Your task to perform on an android device: Go to internet settings Image 0: 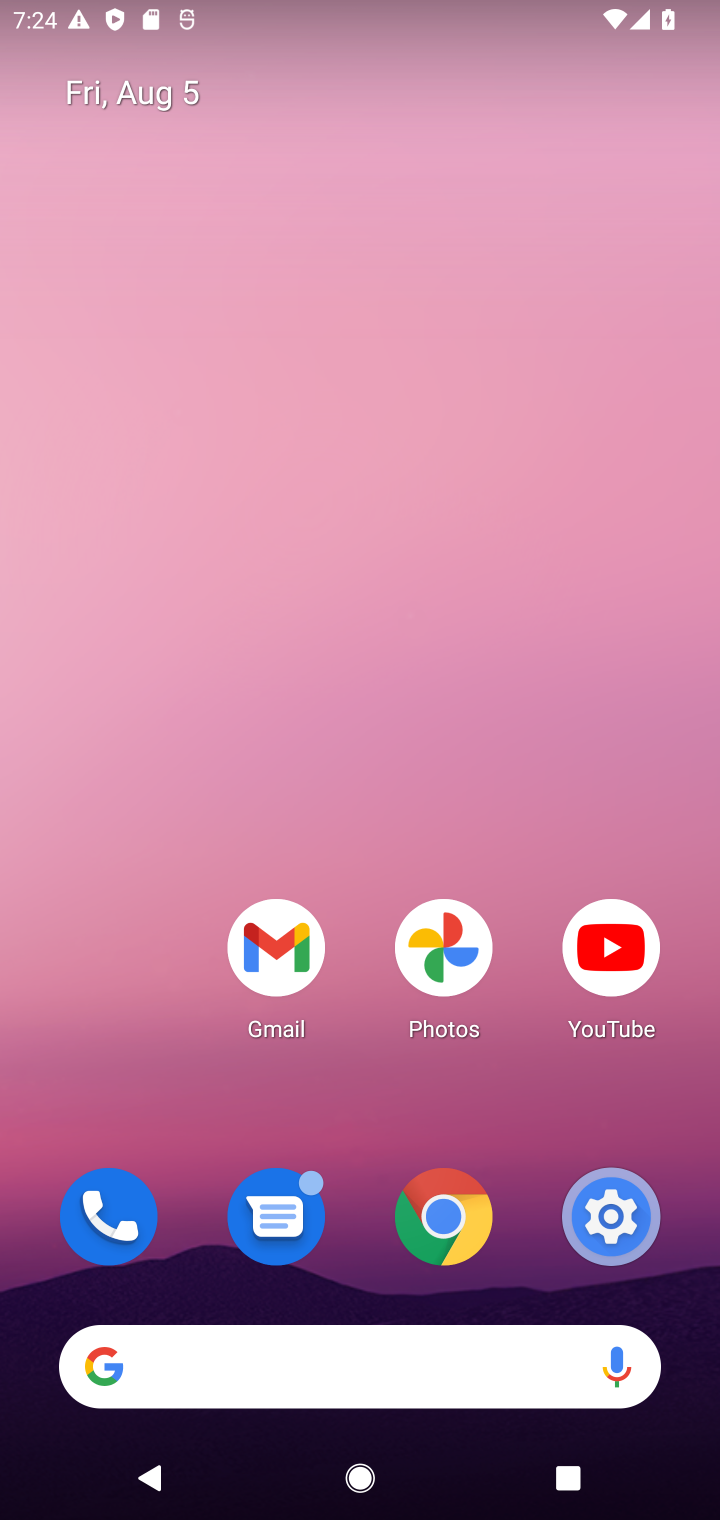
Step 0: click (596, 1198)
Your task to perform on an android device: Go to internet settings Image 1: 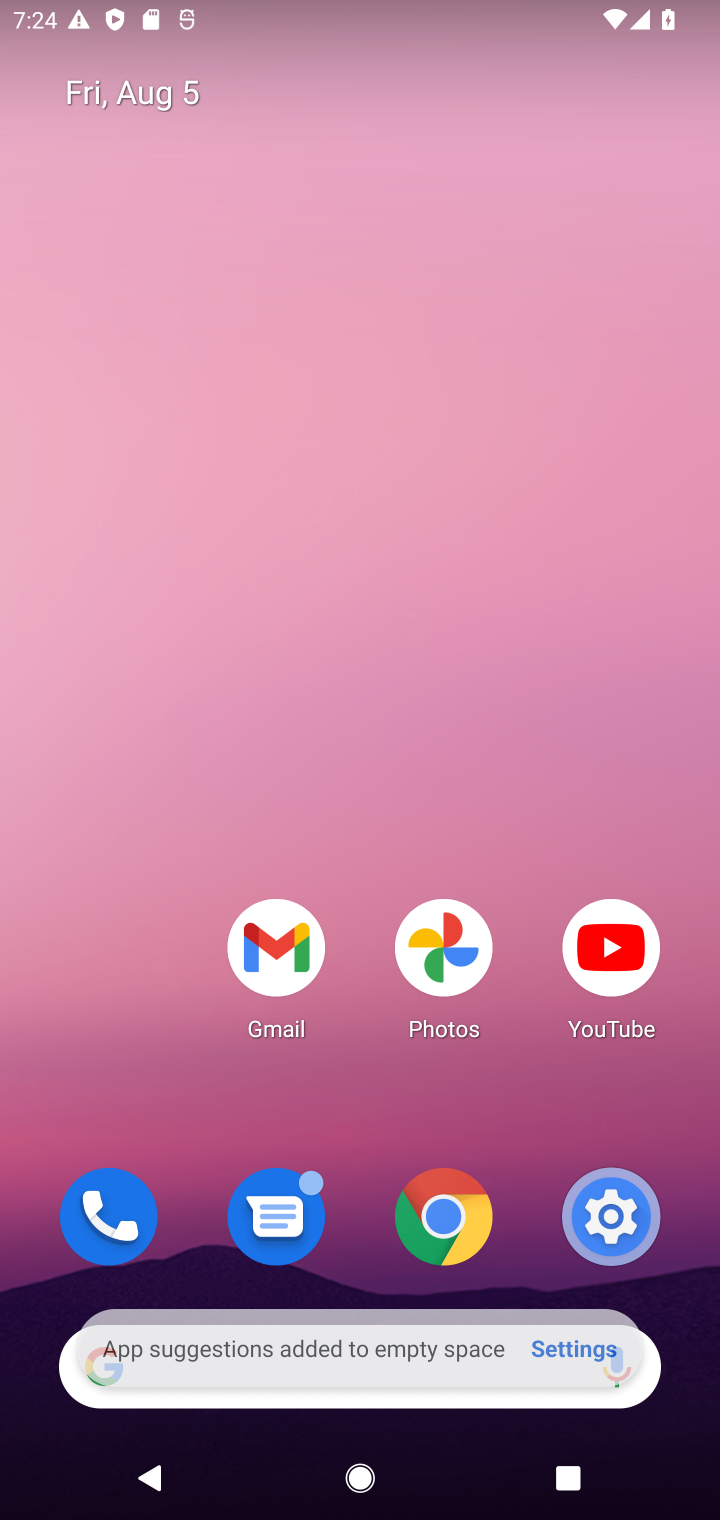
Step 1: click (617, 1234)
Your task to perform on an android device: Go to internet settings Image 2: 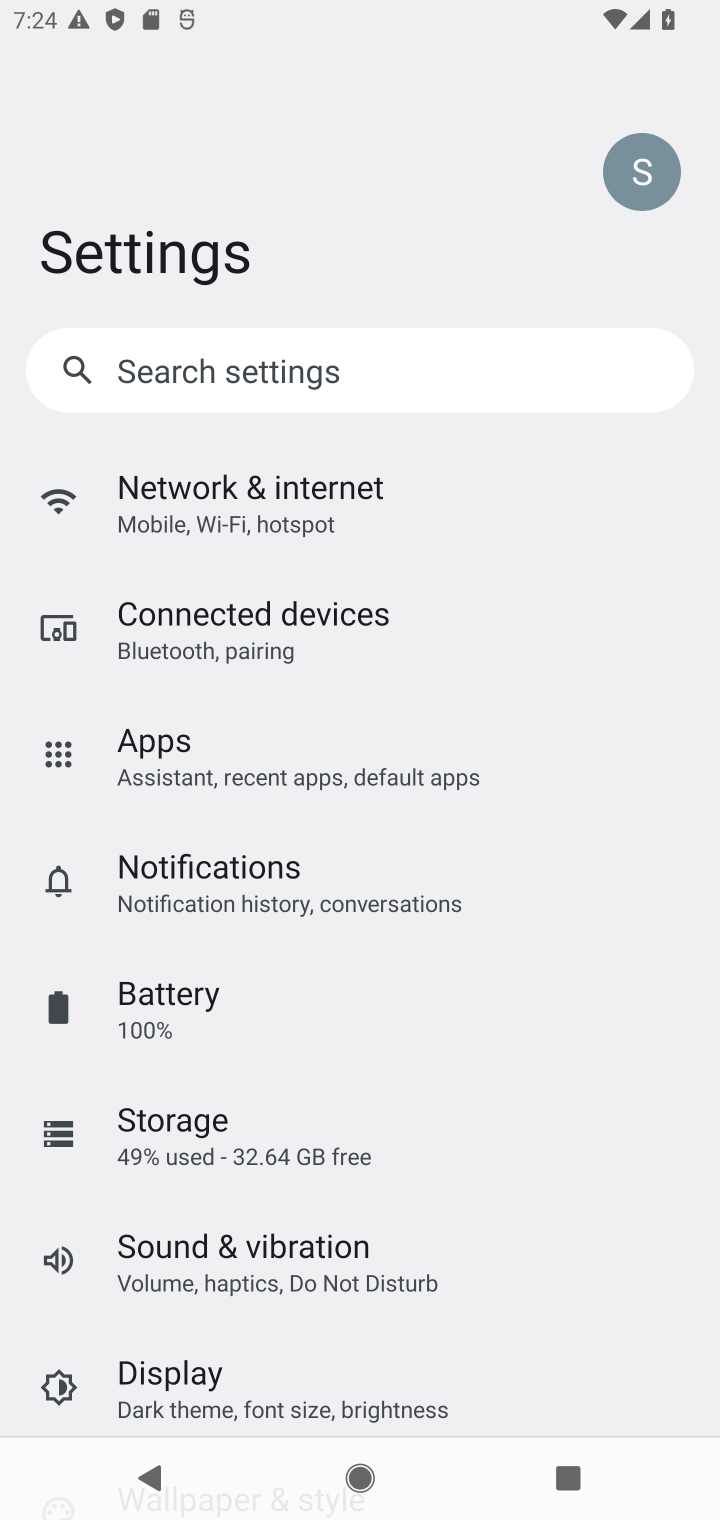
Step 2: click (333, 524)
Your task to perform on an android device: Go to internet settings Image 3: 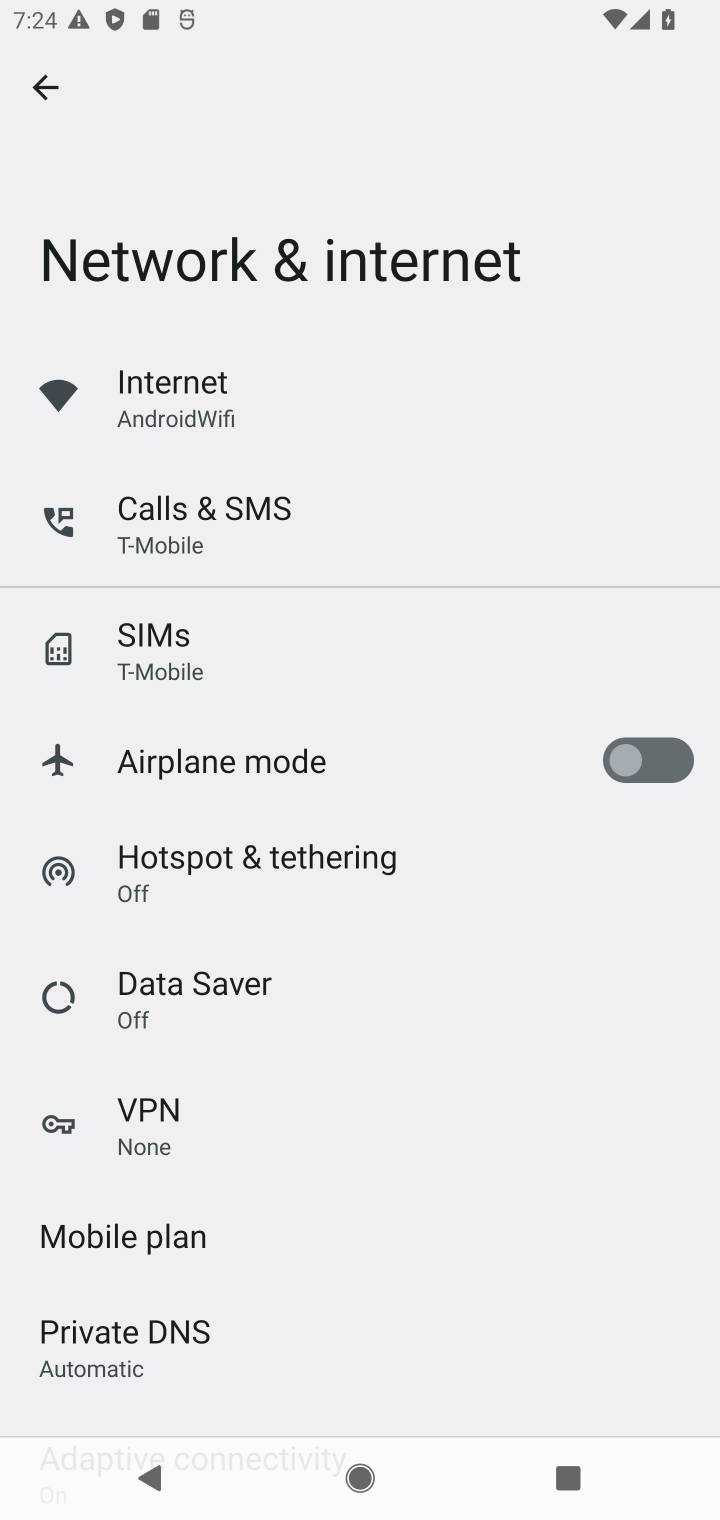
Step 3: click (138, 406)
Your task to perform on an android device: Go to internet settings Image 4: 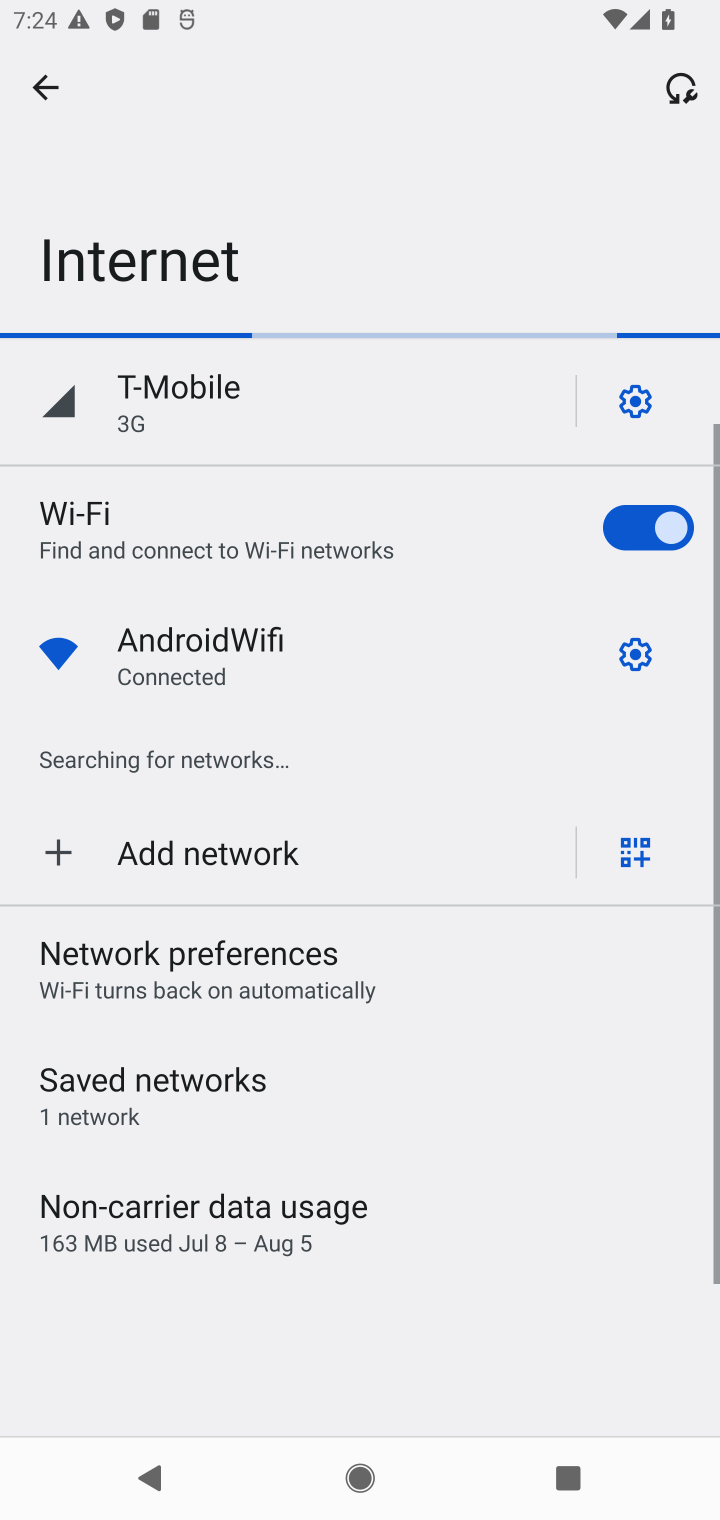
Step 4: click (652, 389)
Your task to perform on an android device: Go to internet settings Image 5: 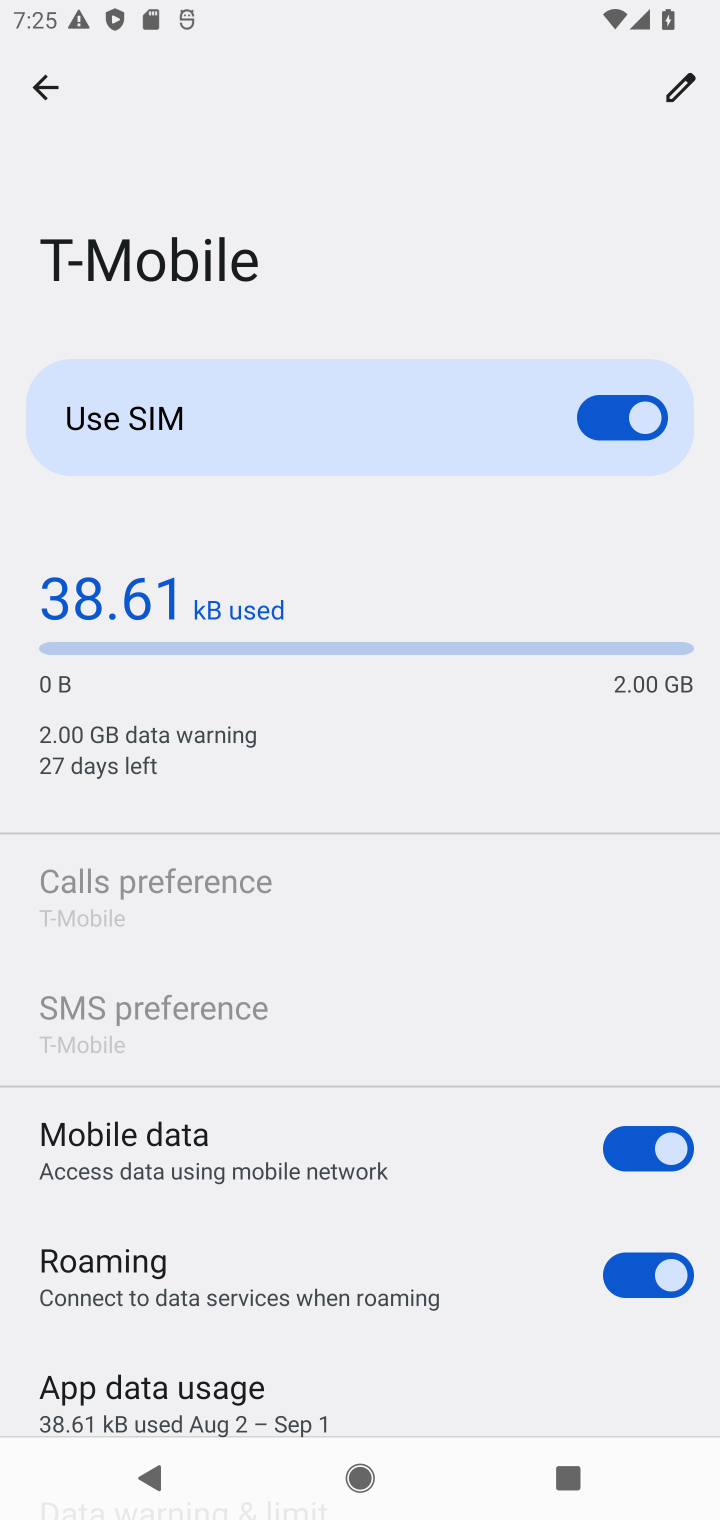
Step 5: task complete